Your task to perform on an android device: turn off wifi Image 0: 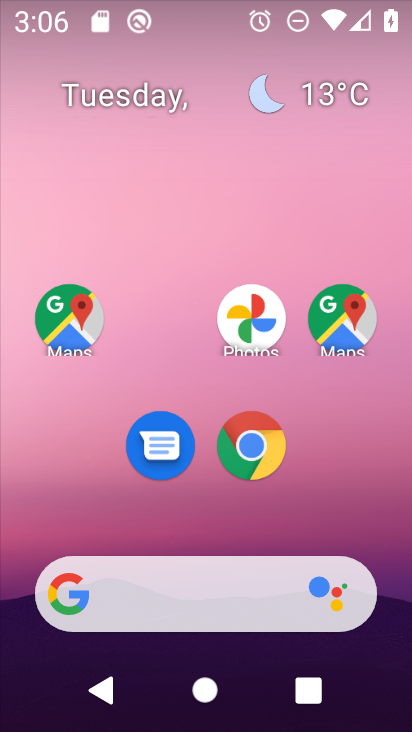
Step 0: drag from (381, 534) to (382, 259)
Your task to perform on an android device: turn off wifi Image 1: 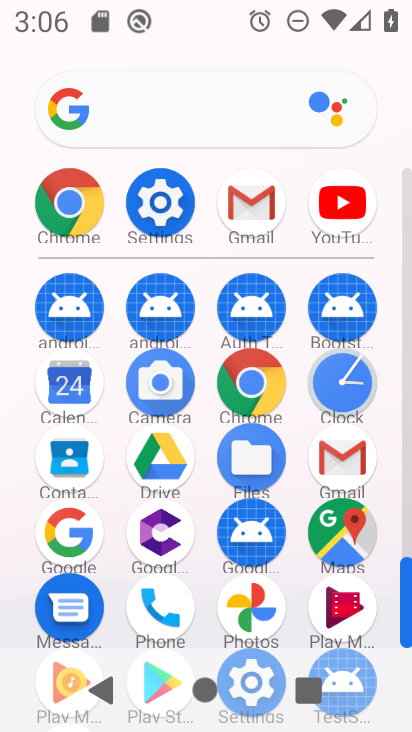
Step 1: drag from (389, 506) to (382, 307)
Your task to perform on an android device: turn off wifi Image 2: 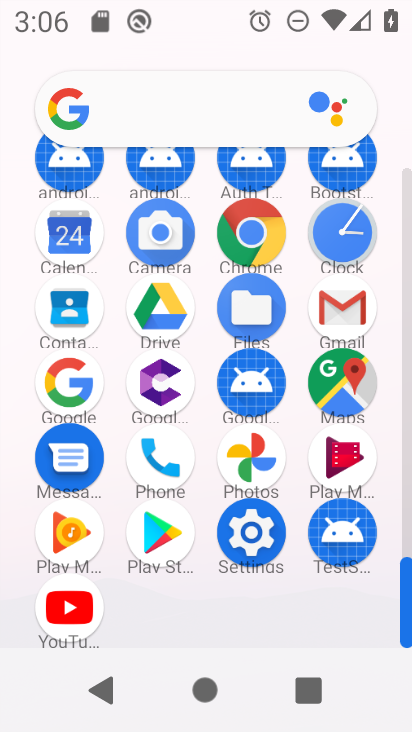
Step 2: click (231, 547)
Your task to perform on an android device: turn off wifi Image 3: 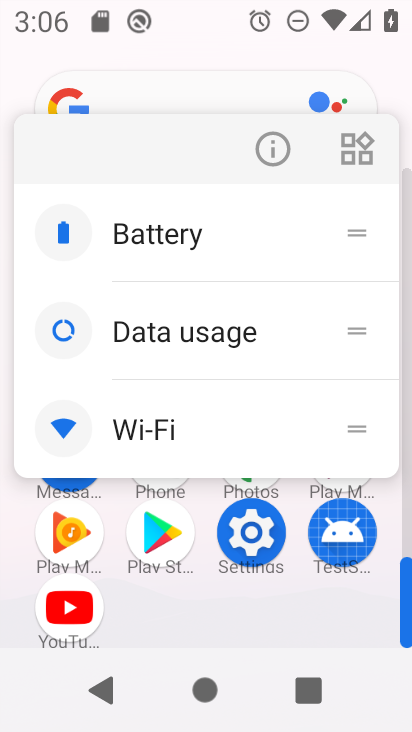
Step 3: click (231, 547)
Your task to perform on an android device: turn off wifi Image 4: 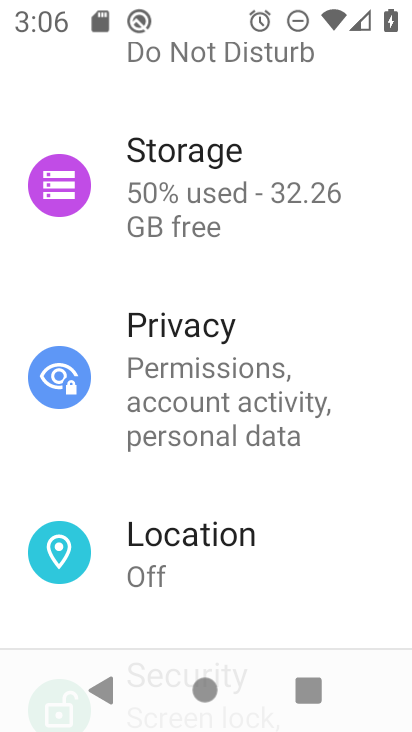
Step 4: drag from (342, 299) to (344, 398)
Your task to perform on an android device: turn off wifi Image 5: 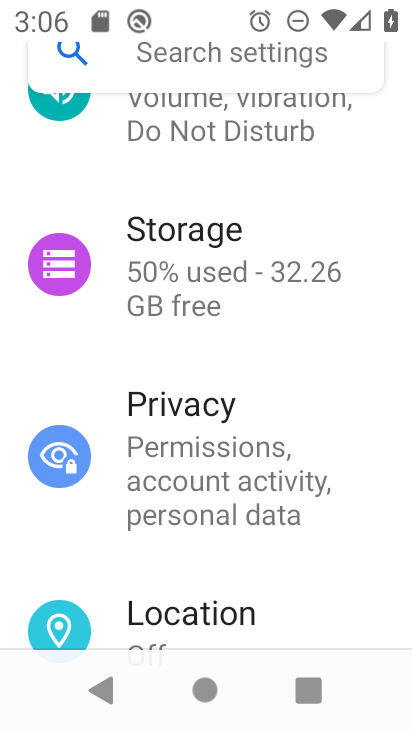
Step 5: drag from (352, 209) to (352, 343)
Your task to perform on an android device: turn off wifi Image 6: 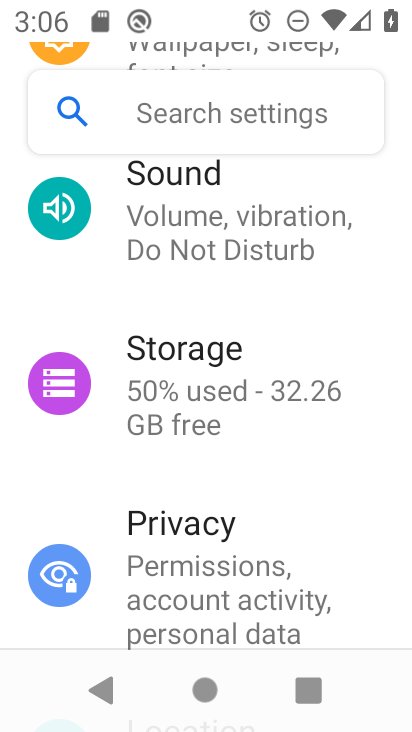
Step 6: drag from (370, 215) to (370, 362)
Your task to perform on an android device: turn off wifi Image 7: 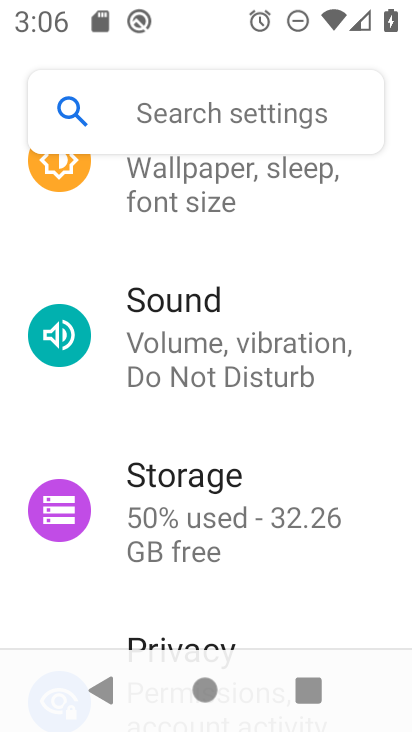
Step 7: drag from (358, 229) to (353, 355)
Your task to perform on an android device: turn off wifi Image 8: 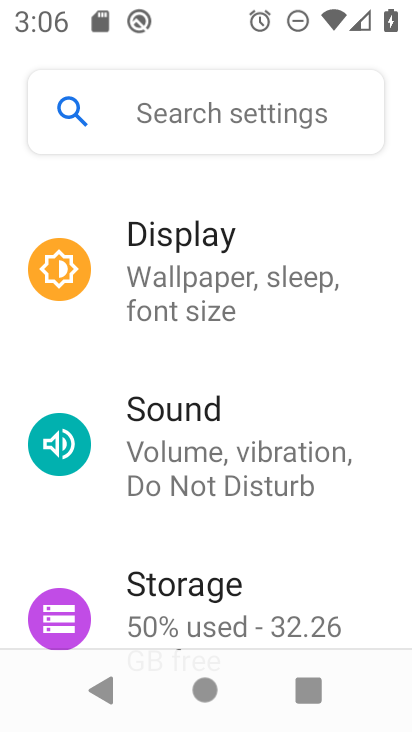
Step 8: drag from (353, 251) to (350, 350)
Your task to perform on an android device: turn off wifi Image 9: 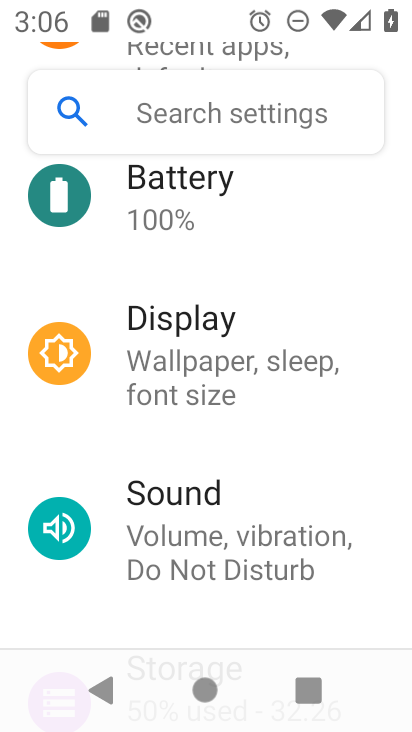
Step 9: drag from (345, 240) to (345, 361)
Your task to perform on an android device: turn off wifi Image 10: 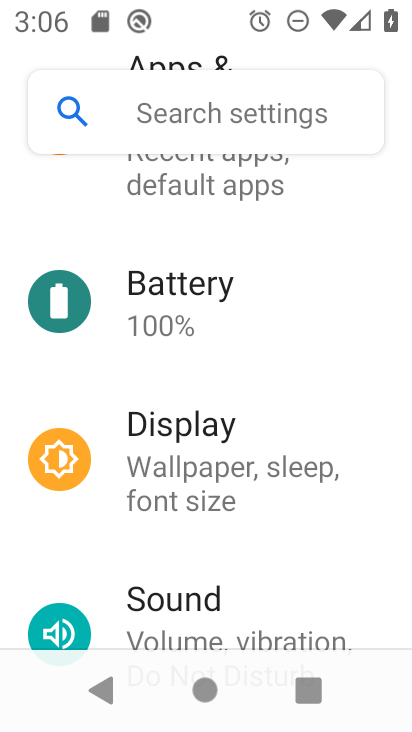
Step 10: drag from (348, 263) to (354, 379)
Your task to perform on an android device: turn off wifi Image 11: 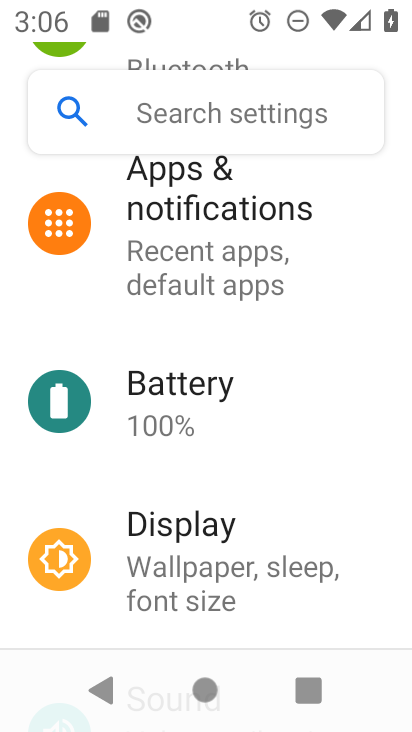
Step 11: drag from (352, 260) to (356, 377)
Your task to perform on an android device: turn off wifi Image 12: 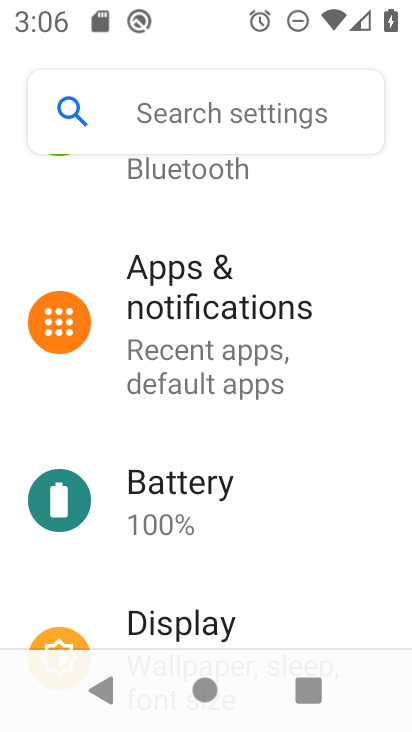
Step 12: drag from (348, 245) to (344, 389)
Your task to perform on an android device: turn off wifi Image 13: 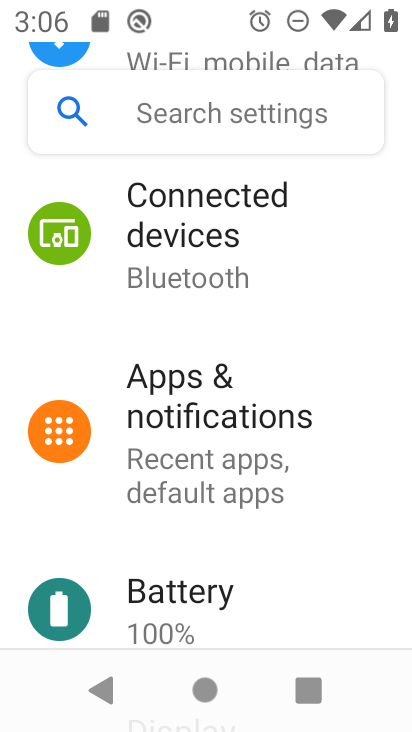
Step 13: drag from (338, 217) to (335, 358)
Your task to perform on an android device: turn off wifi Image 14: 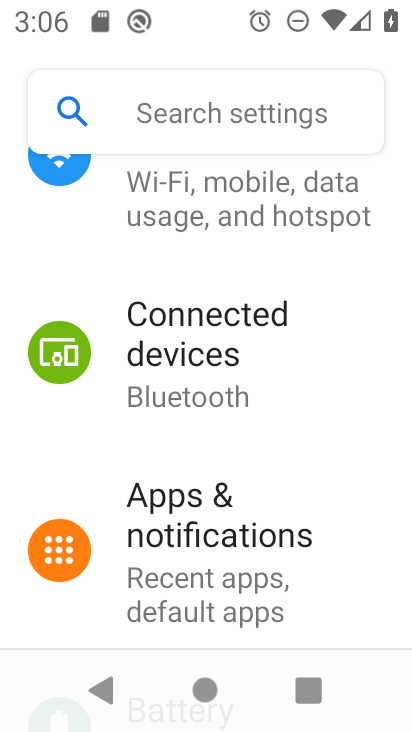
Step 14: drag from (367, 192) to (340, 354)
Your task to perform on an android device: turn off wifi Image 15: 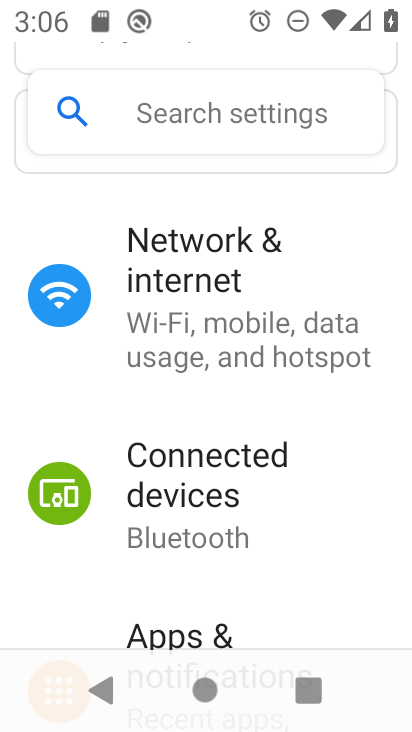
Step 15: click (245, 311)
Your task to perform on an android device: turn off wifi Image 16: 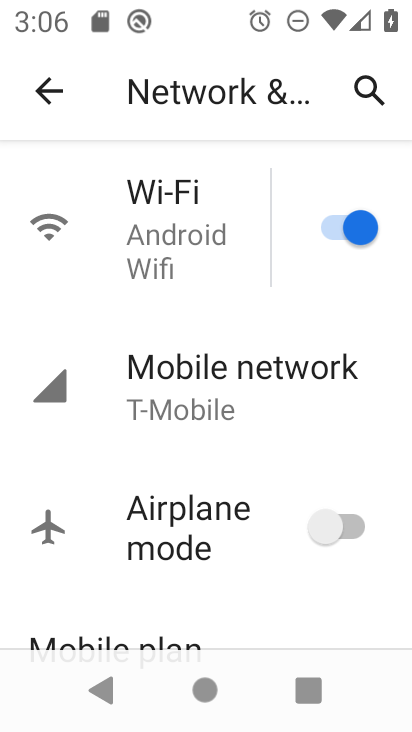
Step 16: click (330, 240)
Your task to perform on an android device: turn off wifi Image 17: 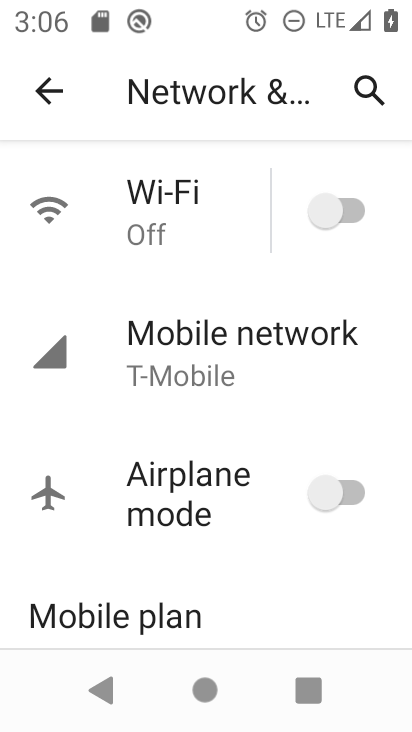
Step 17: task complete